Your task to perform on an android device: Go to calendar. Show me events next week Image 0: 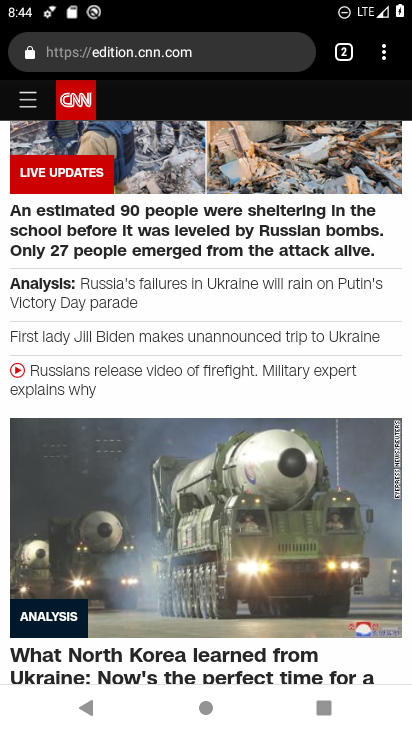
Step 0: press home button
Your task to perform on an android device: Go to calendar. Show me events next week Image 1: 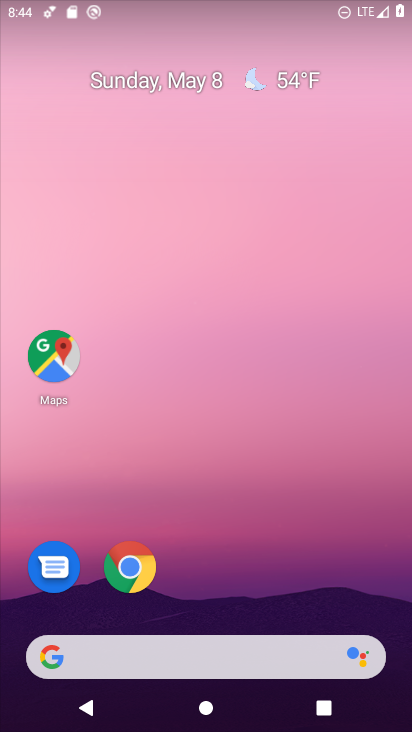
Step 1: drag from (306, 590) to (268, 156)
Your task to perform on an android device: Go to calendar. Show me events next week Image 2: 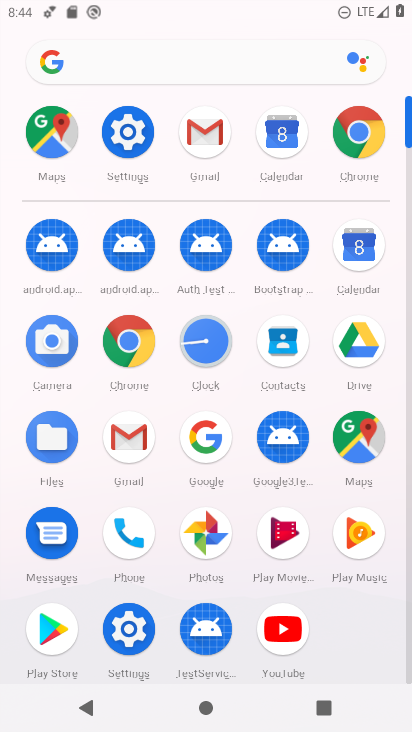
Step 2: click (281, 136)
Your task to perform on an android device: Go to calendar. Show me events next week Image 3: 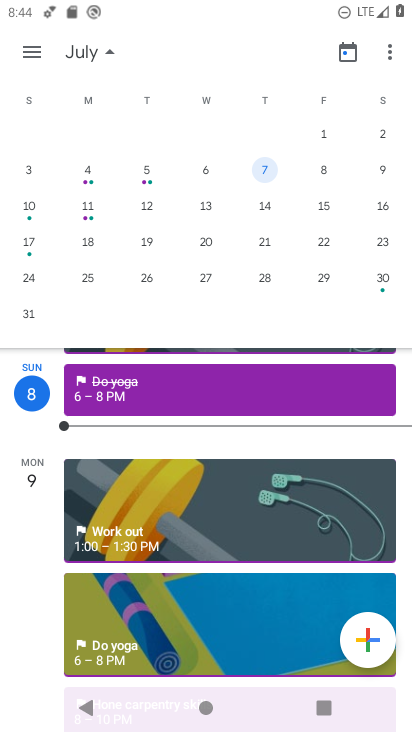
Step 3: click (87, 217)
Your task to perform on an android device: Go to calendar. Show me events next week Image 4: 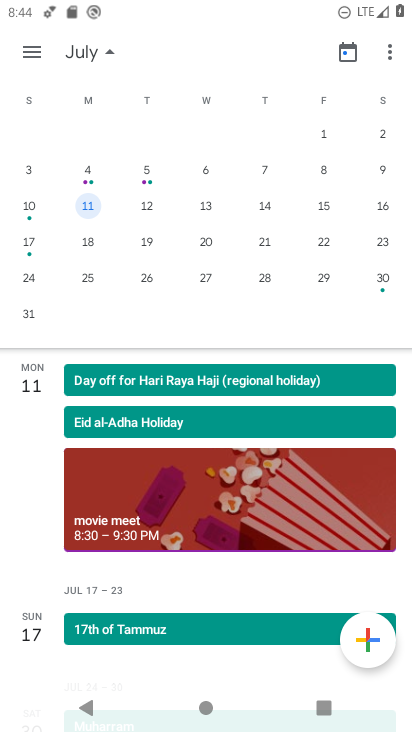
Step 4: task complete